Your task to perform on an android device: toggle translation in the chrome app Image 0: 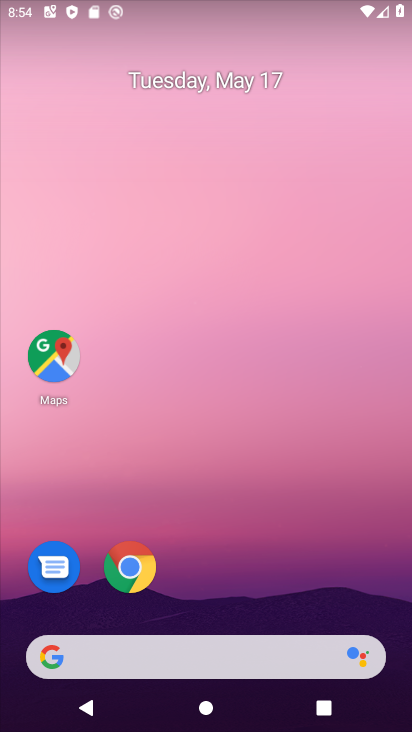
Step 0: click (133, 568)
Your task to perform on an android device: toggle translation in the chrome app Image 1: 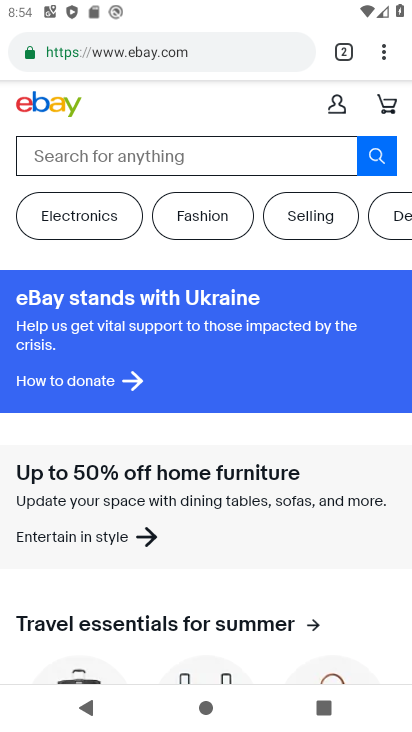
Step 1: click (379, 53)
Your task to perform on an android device: toggle translation in the chrome app Image 2: 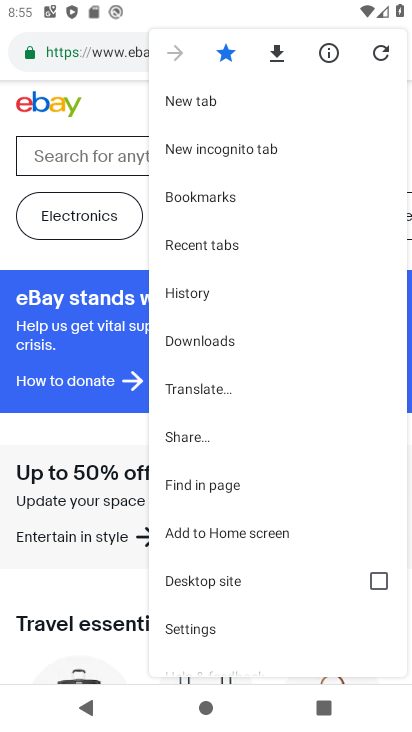
Step 2: drag from (273, 604) to (224, 313)
Your task to perform on an android device: toggle translation in the chrome app Image 3: 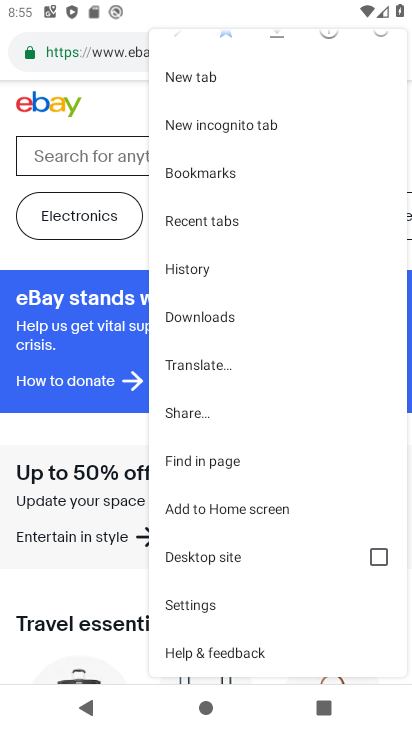
Step 3: click (198, 600)
Your task to perform on an android device: toggle translation in the chrome app Image 4: 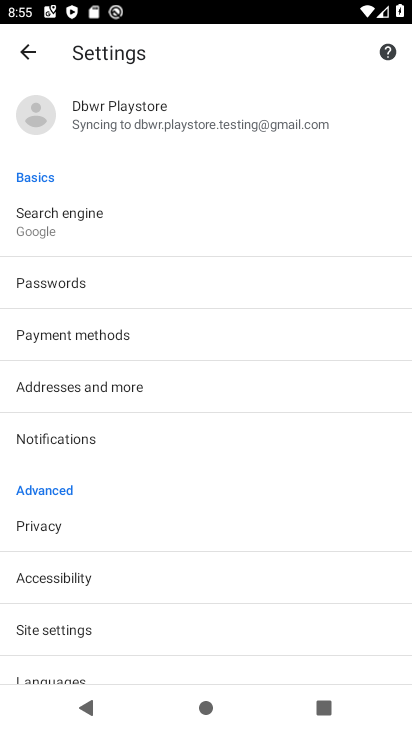
Step 4: drag from (176, 515) to (135, 248)
Your task to perform on an android device: toggle translation in the chrome app Image 5: 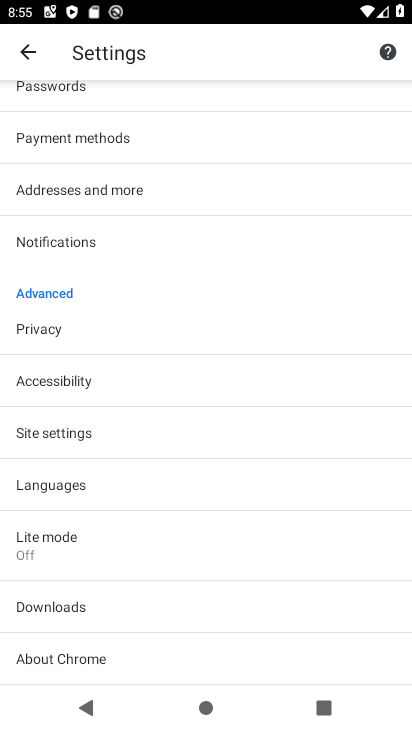
Step 5: click (58, 478)
Your task to perform on an android device: toggle translation in the chrome app Image 6: 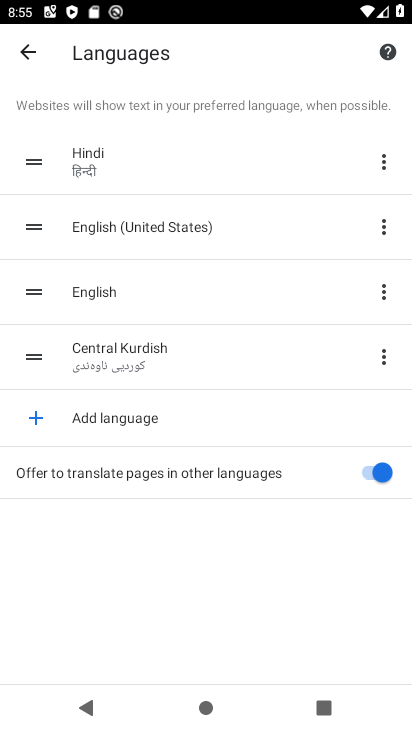
Step 6: click (374, 469)
Your task to perform on an android device: toggle translation in the chrome app Image 7: 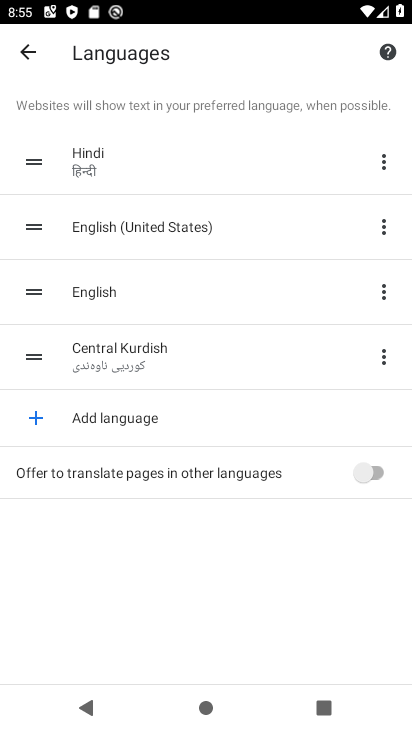
Step 7: task complete